Your task to perform on an android device: see sites visited before in the chrome app Image 0: 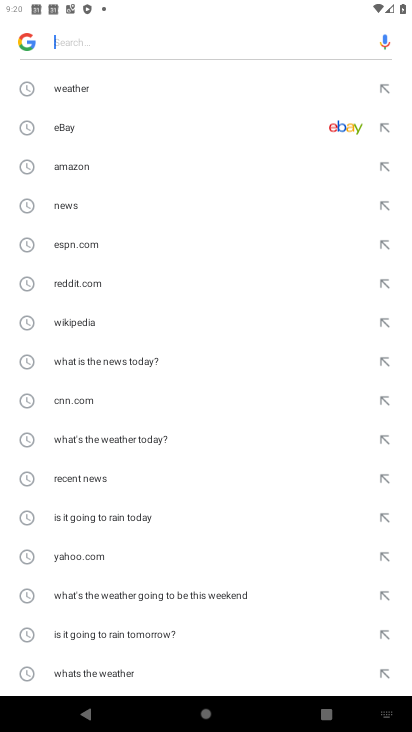
Step 0: press home button
Your task to perform on an android device: see sites visited before in the chrome app Image 1: 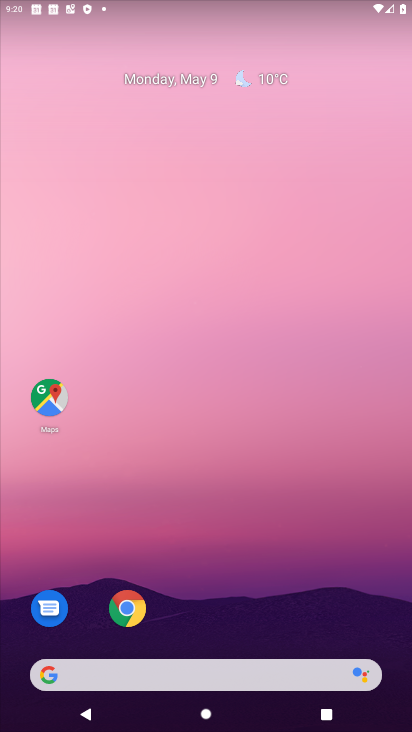
Step 1: drag from (410, 336) to (283, 0)
Your task to perform on an android device: see sites visited before in the chrome app Image 2: 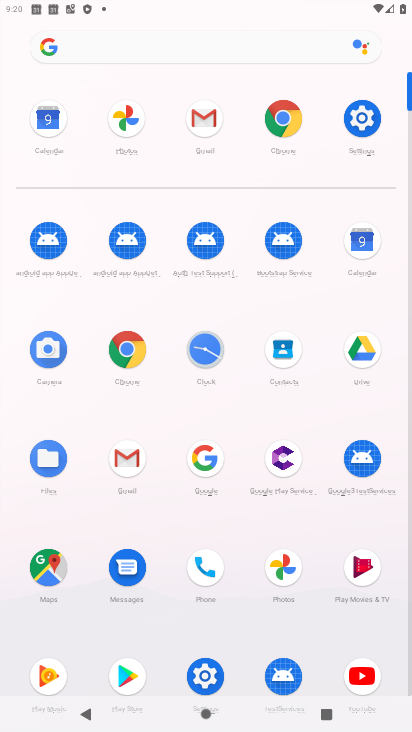
Step 2: click (293, 128)
Your task to perform on an android device: see sites visited before in the chrome app Image 3: 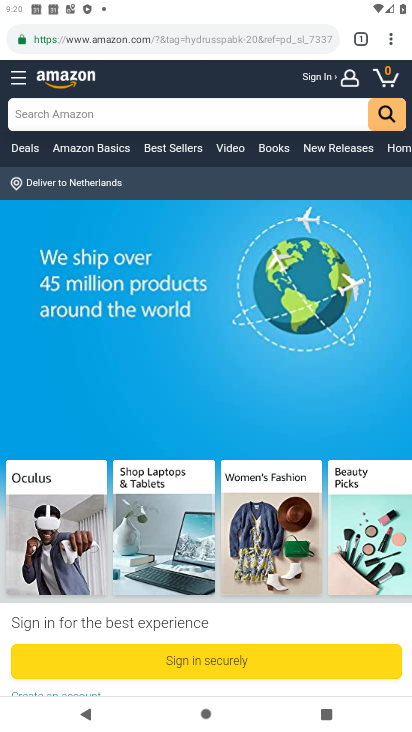
Step 3: task complete